Your task to perform on an android device: turn on airplane mode Image 0: 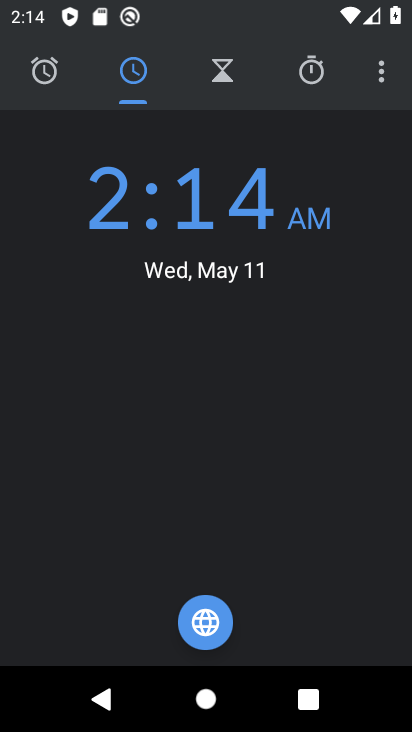
Step 0: press home button
Your task to perform on an android device: turn on airplane mode Image 1: 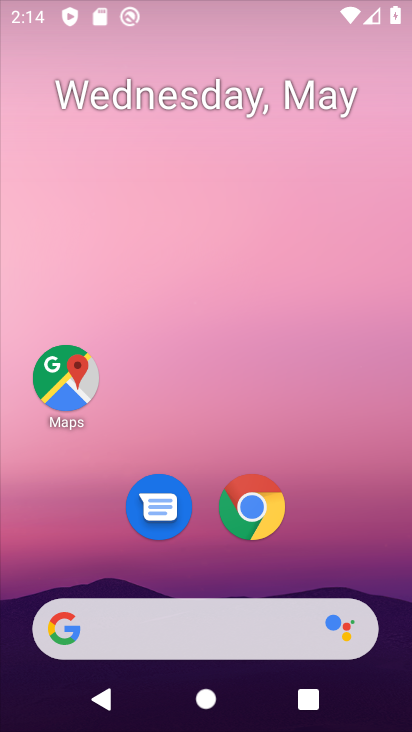
Step 1: drag from (364, 591) to (361, 234)
Your task to perform on an android device: turn on airplane mode Image 2: 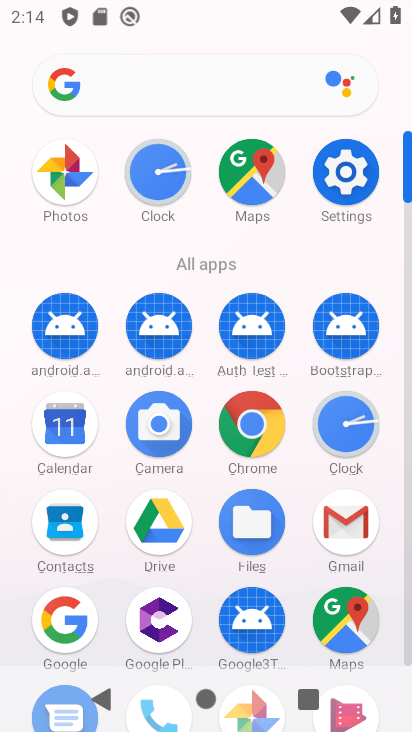
Step 2: click (363, 201)
Your task to perform on an android device: turn on airplane mode Image 3: 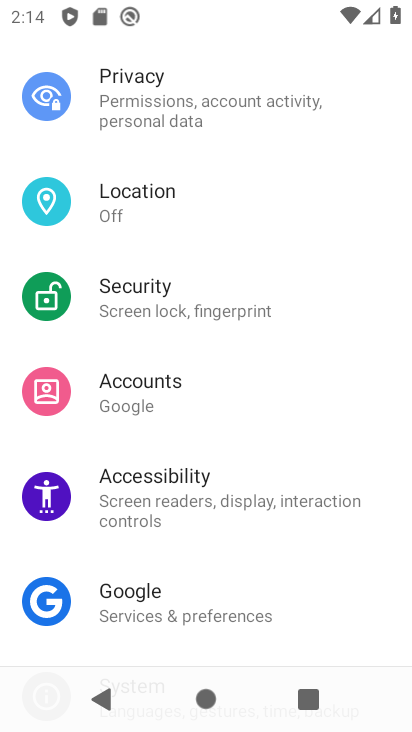
Step 3: drag from (173, 146) to (260, 570)
Your task to perform on an android device: turn on airplane mode Image 4: 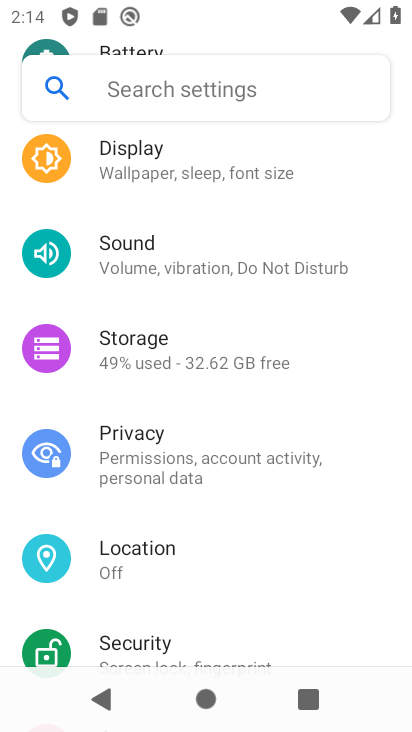
Step 4: drag from (243, 294) to (324, 605)
Your task to perform on an android device: turn on airplane mode Image 5: 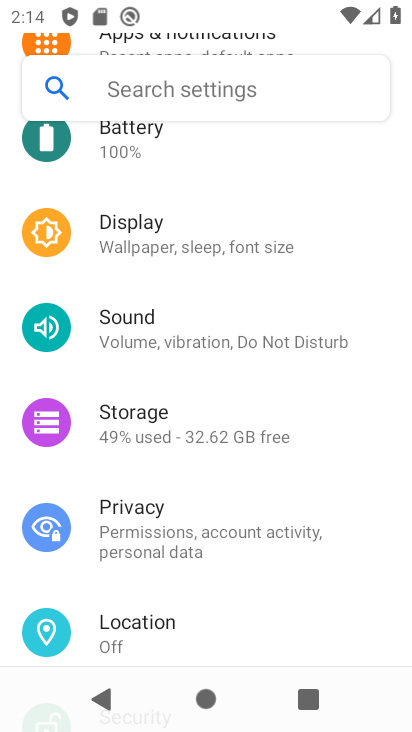
Step 5: drag from (238, 243) to (344, 645)
Your task to perform on an android device: turn on airplane mode Image 6: 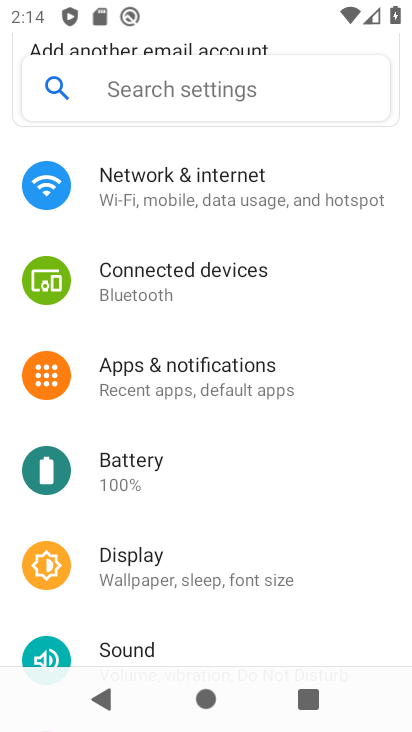
Step 6: click (214, 206)
Your task to perform on an android device: turn on airplane mode Image 7: 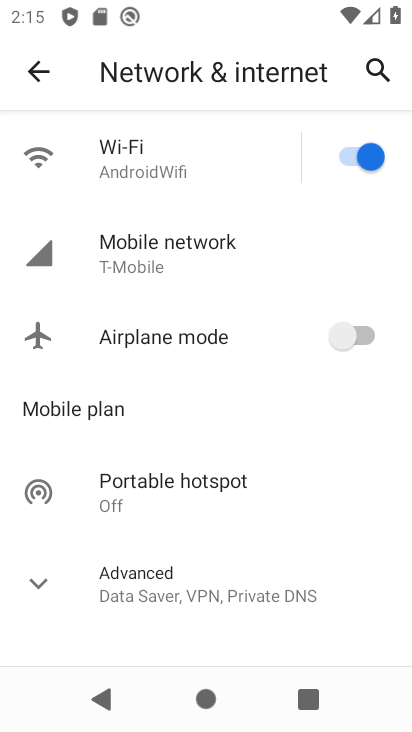
Step 7: click (357, 337)
Your task to perform on an android device: turn on airplane mode Image 8: 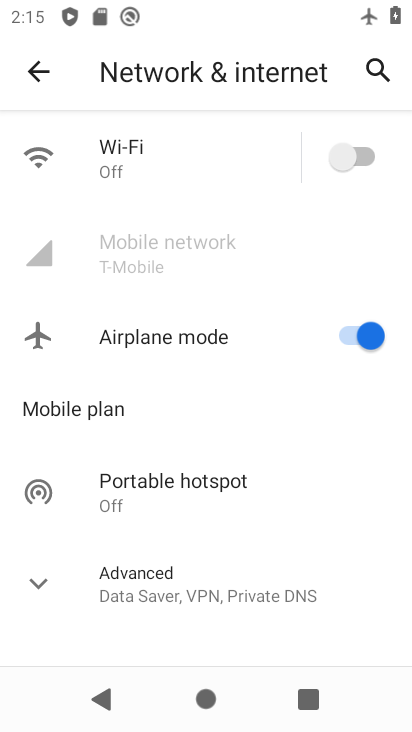
Step 8: task complete